Your task to perform on an android device: toggle data saver in the chrome app Image 0: 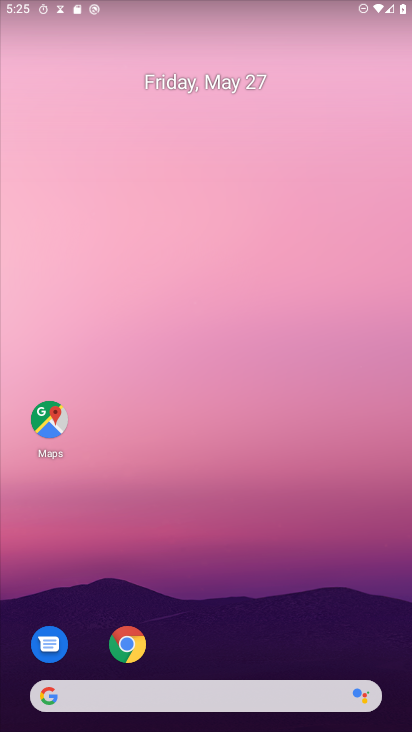
Step 0: click (128, 650)
Your task to perform on an android device: toggle data saver in the chrome app Image 1: 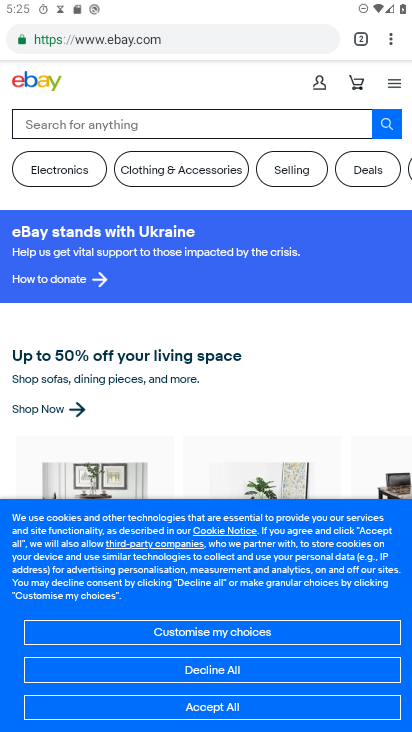
Step 1: click (392, 44)
Your task to perform on an android device: toggle data saver in the chrome app Image 2: 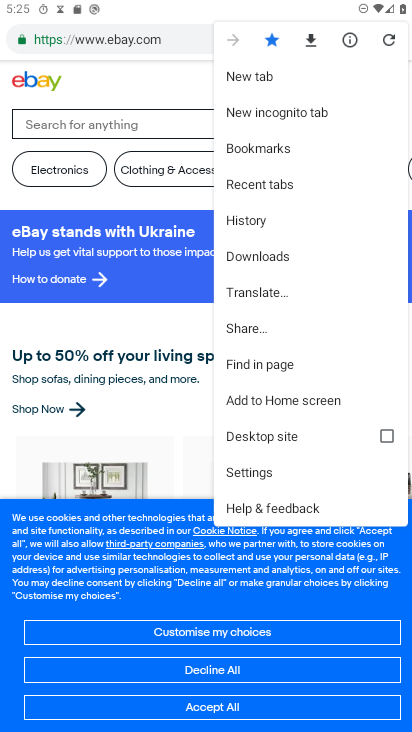
Step 2: click (279, 482)
Your task to perform on an android device: toggle data saver in the chrome app Image 3: 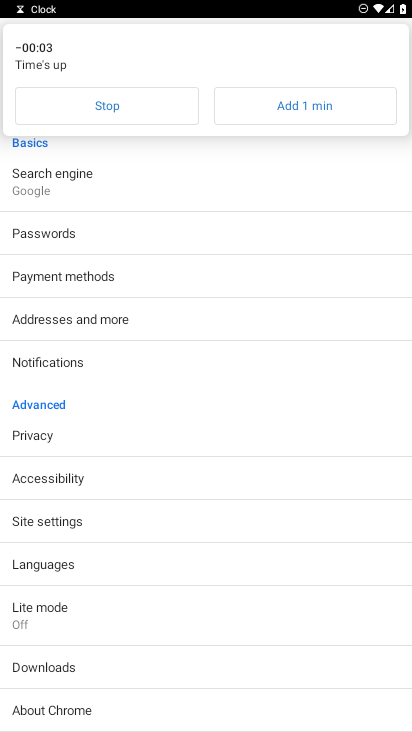
Step 3: click (107, 606)
Your task to perform on an android device: toggle data saver in the chrome app Image 4: 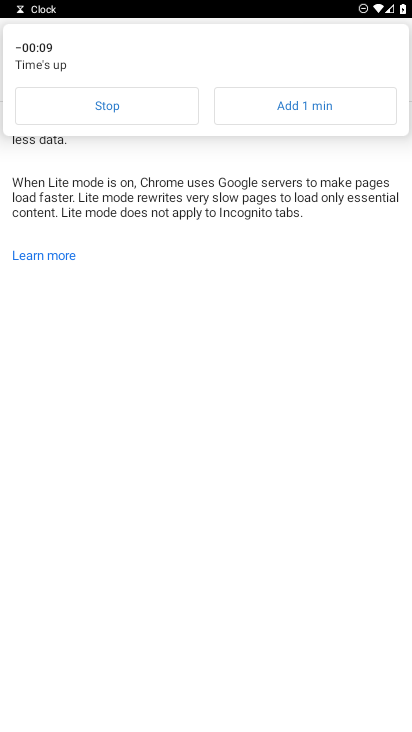
Step 4: click (159, 102)
Your task to perform on an android device: toggle data saver in the chrome app Image 5: 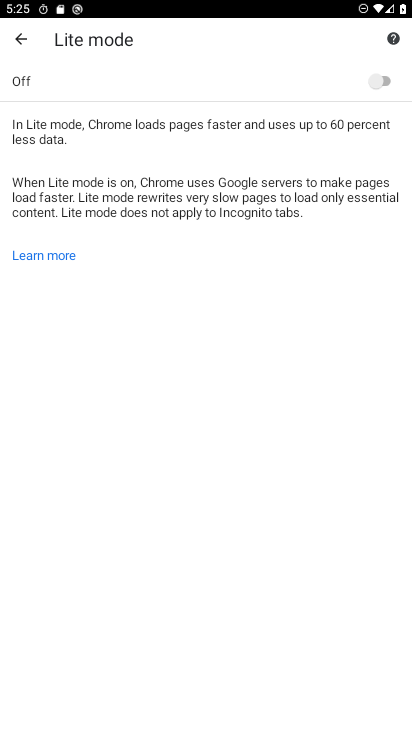
Step 5: click (161, 116)
Your task to perform on an android device: toggle data saver in the chrome app Image 6: 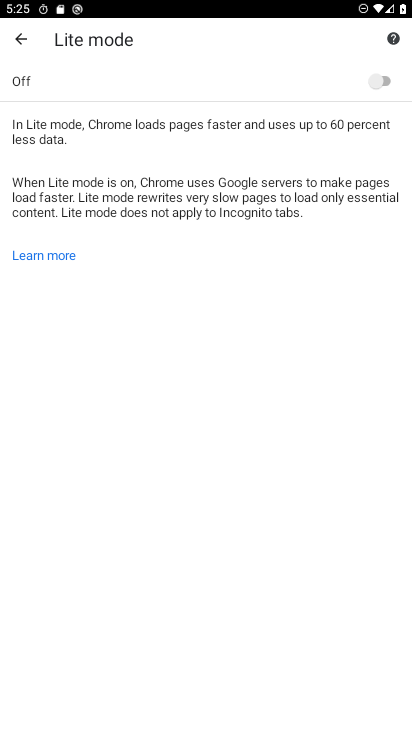
Step 6: click (377, 80)
Your task to perform on an android device: toggle data saver in the chrome app Image 7: 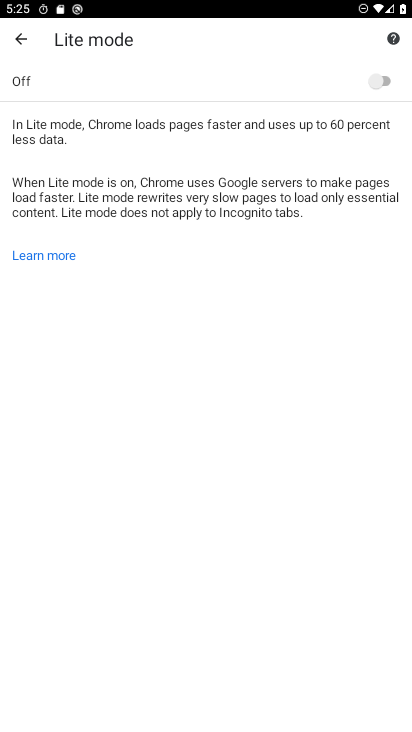
Step 7: click (377, 80)
Your task to perform on an android device: toggle data saver in the chrome app Image 8: 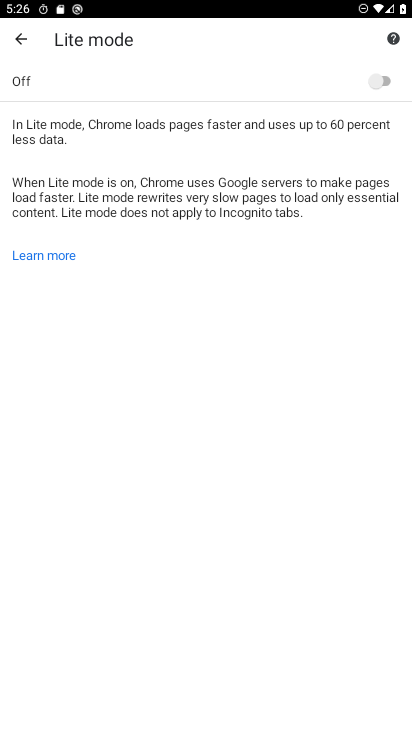
Step 8: task complete